Your task to perform on an android device: Show me the alarms in the clock app Image 0: 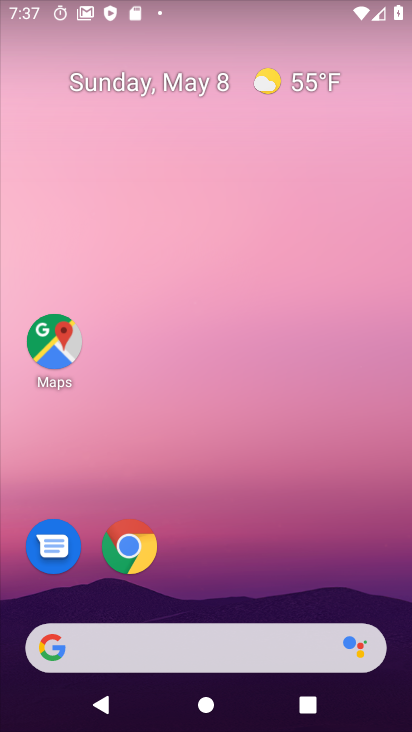
Step 0: drag from (285, 557) to (316, 42)
Your task to perform on an android device: Show me the alarms in the clock app Image 1: 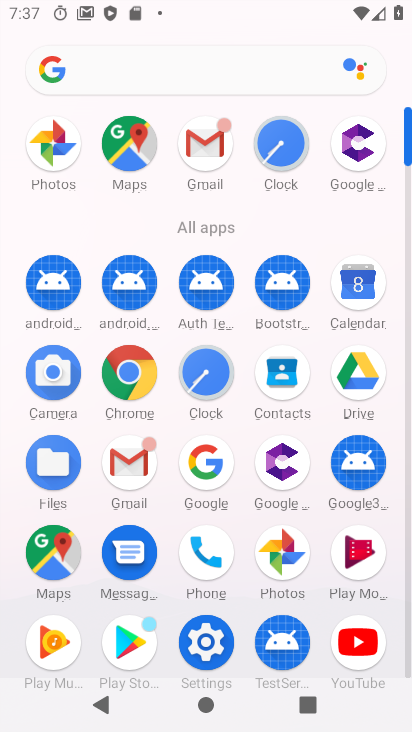
Step 1: click (289, 135)
Your task to perform on an android device: Show me the alarms in the clock app Image 2: 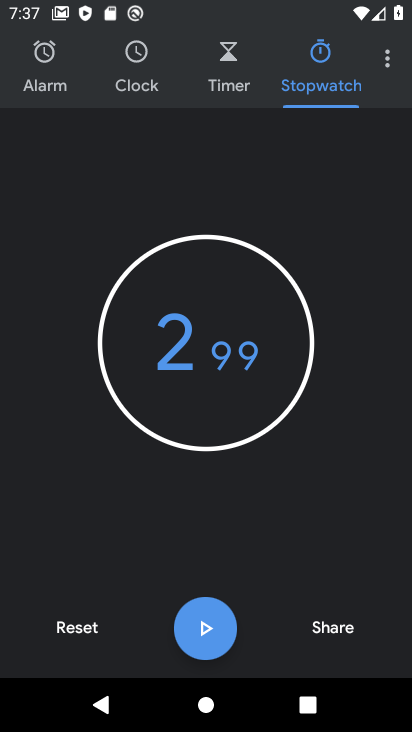
Step 2: click (36, 62)
Your task to perform on an android device: Show me the alarms in the clock app Image 3: 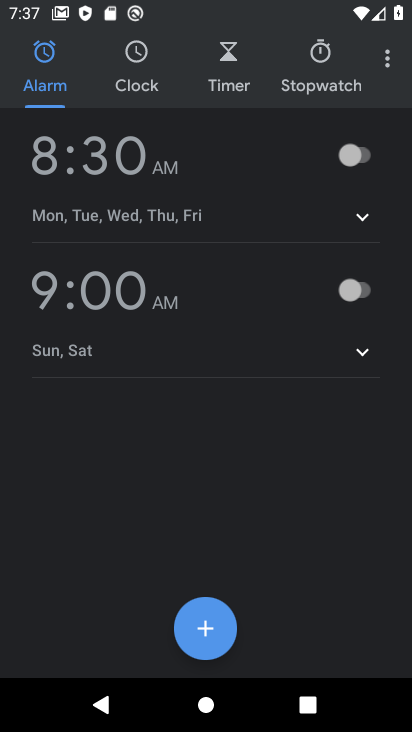
Step 3: task complete